Your task to perform on an android device: Go to Google Image 0: 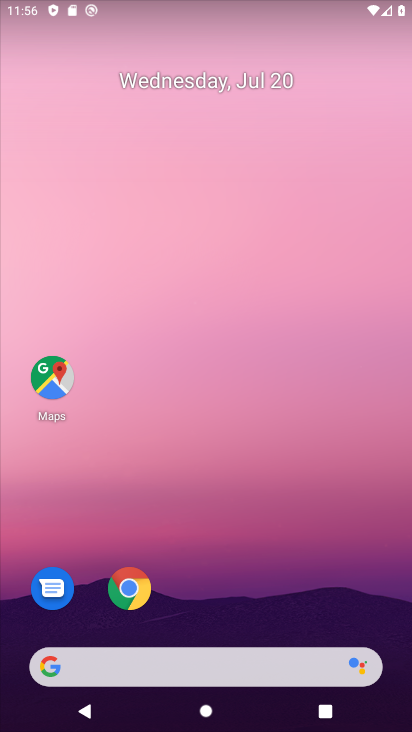
Step 0: drag from (248, 599) to (258, 114)
Your task to perform on an android device: Go to Google Image 1: 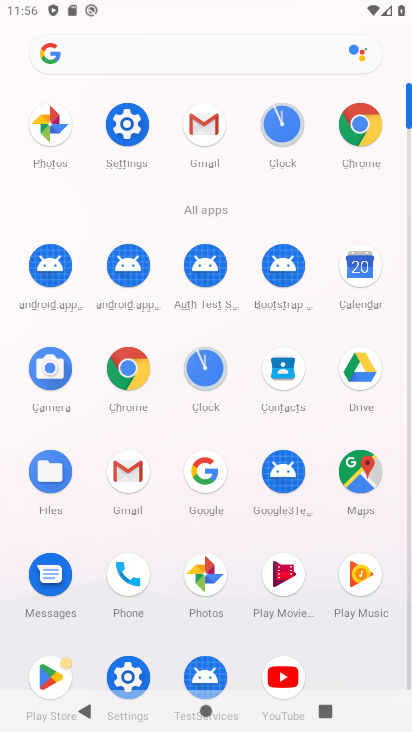
Step 1: click (207, 479)
Your task to perform on an android device: Go to Google Image 2: 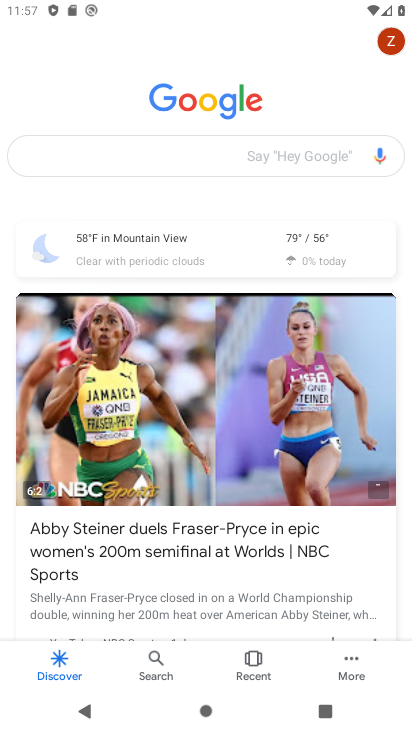
Step 2: task complete